Your task to perform on an android device: turn on bluetooth scan Image 0: 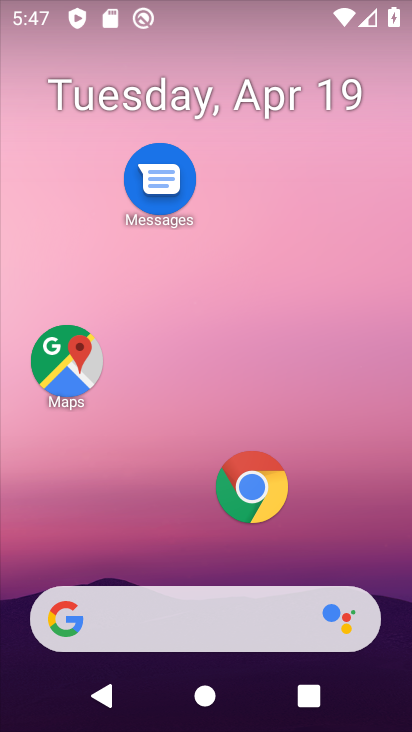
Step 0: drag from (191, 550) to (252, 16)
Your task to perform on an android device: turn on bluetooth scan Image 1: 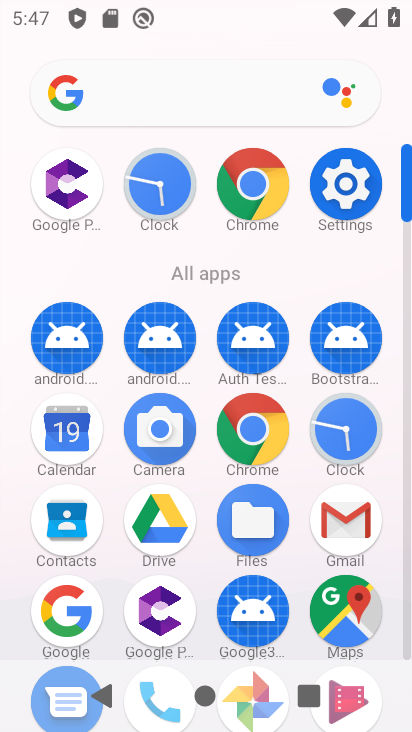
Step 1: click (343, 178)
Your task to perform on an android device: turn on bluetooth scan Image 2: 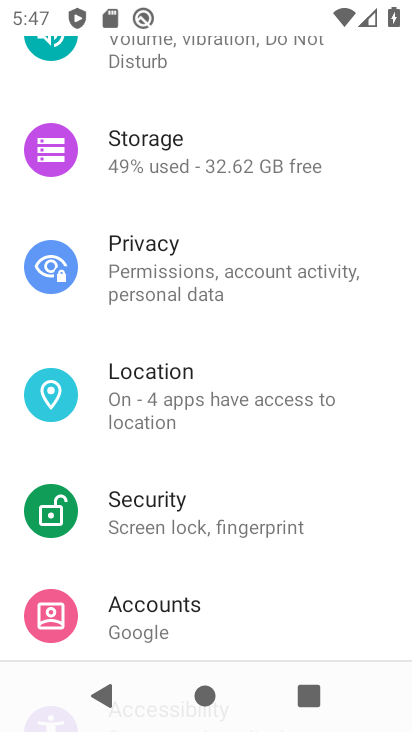
Step 2: click (195, 389)
Your task to perform on an android device: turn on bluetooth scan Image 3: 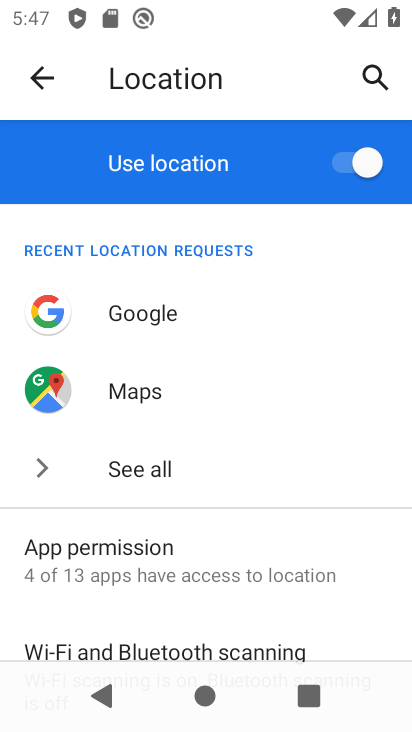
Step 3: click (228, 643)
Your task to perform on an android device: turn on bluetooth scan Image 4: 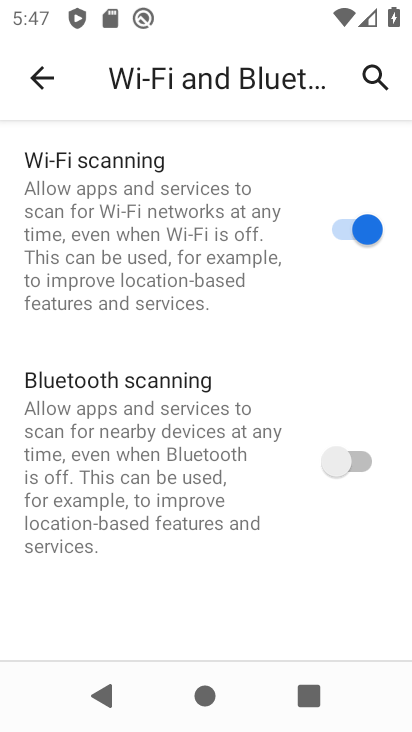
Step 4: click (359, 458)
Your task to perform on an android device: turn on bluetooth scan Image 5: 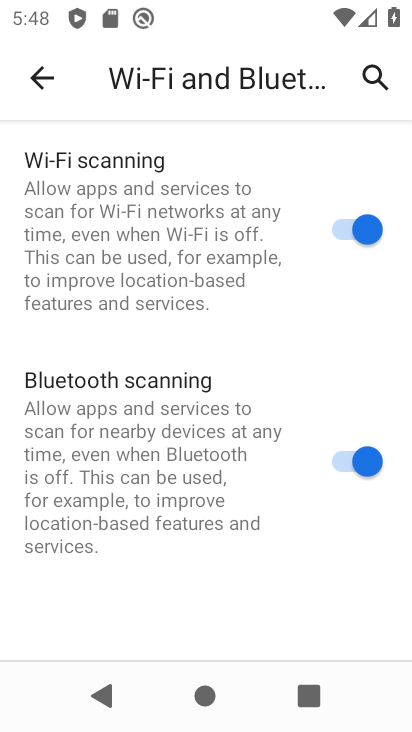
Step 5: task complete